Your task to perform on an android device: Go to Maps Image 0: 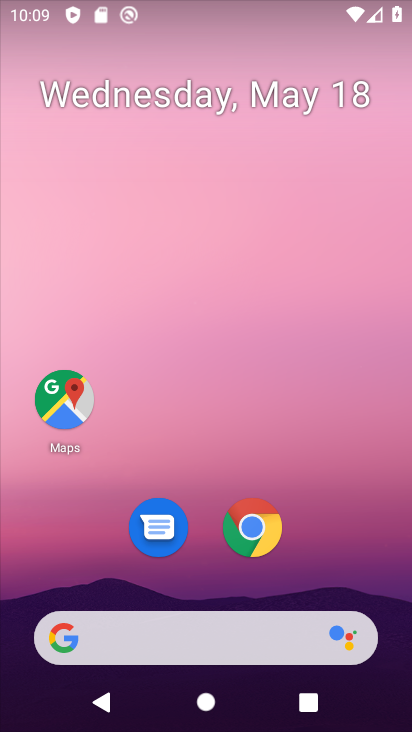
Step 0: click (79, 404)
Your task to perform on an android device: Go to Maps Image 1: 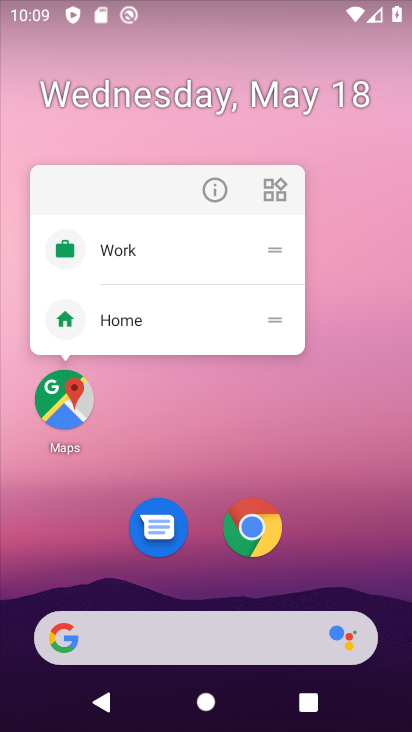
Step 1: click (55, 407)
Your task to perform on an android device: Go to Maps Image 2: 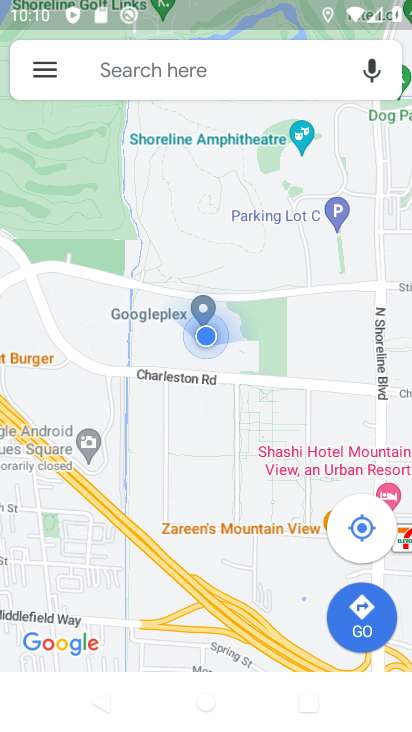
Step 2: task complete